Your task to perform on an android device: Open Google Maps Image 0: 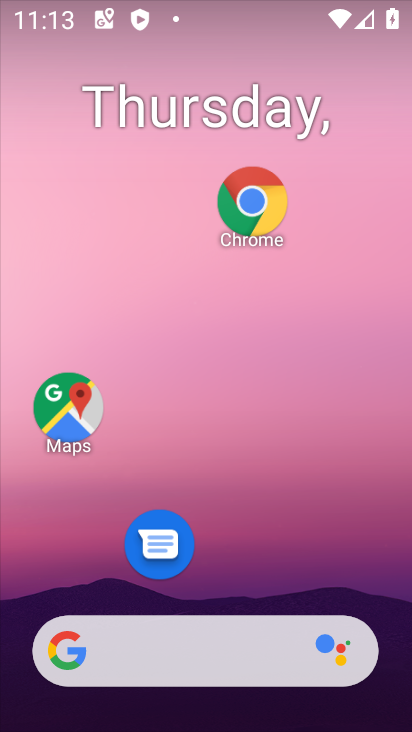
Step 0: press home button
Your task to perform on an android device: Open Google Maps Image 1: 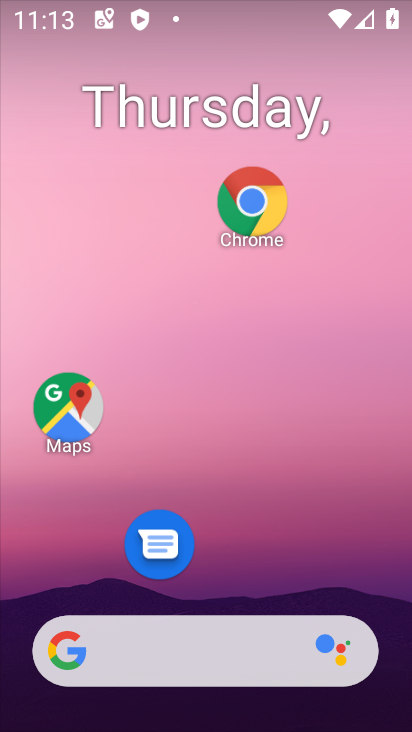
Step 1: press home button
Your task to perform on an android device: Open Google Maps Image 2: 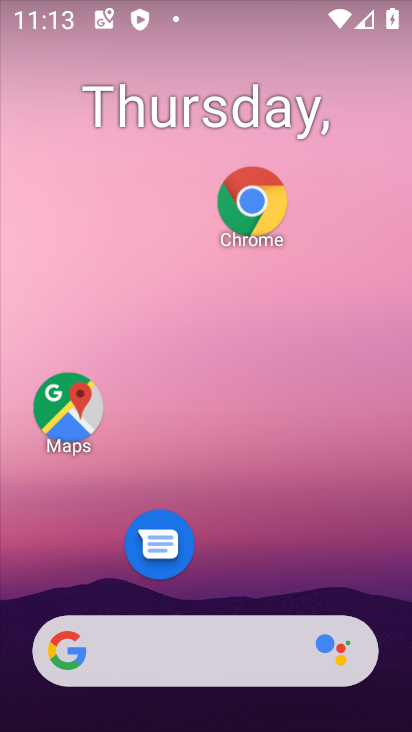
Step 2: click (69, 403)
Your task to perform on an android device: Open Google Maps Image 3: 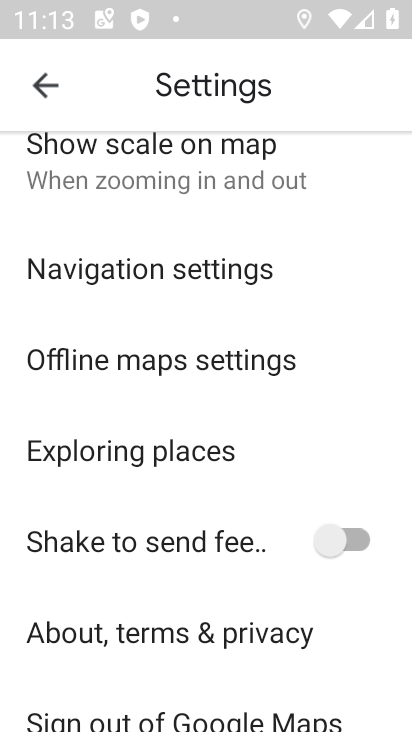
Step 3: click (54, 89)
Your task to perform on an android device: Open Google Maps Image 4: 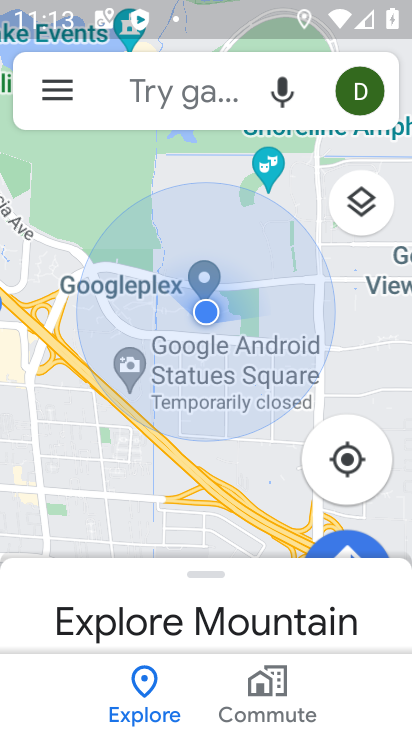
Step 4: drag from (221, 527) to (253, 215)
Your task to perform on an android device: Open Google Maps Image 5: 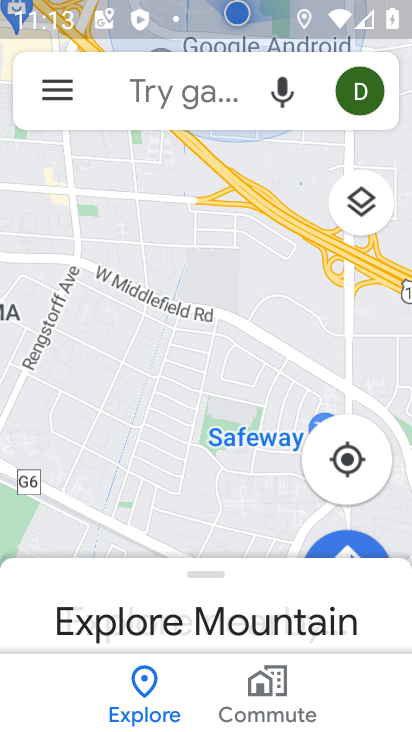
Step 5: drag from (205, 590) to (257, 194)
Your task to perform on an android device: Open Google Maps Image 6: 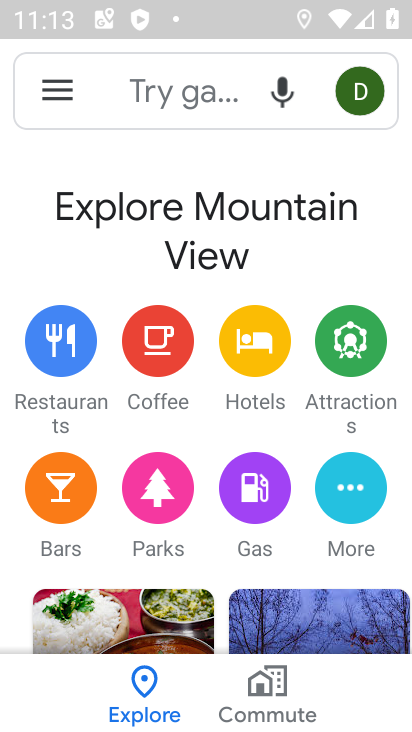
Step 6: click (220, 570)
Your task to perform on an android device: Open Google Maps Image 7: 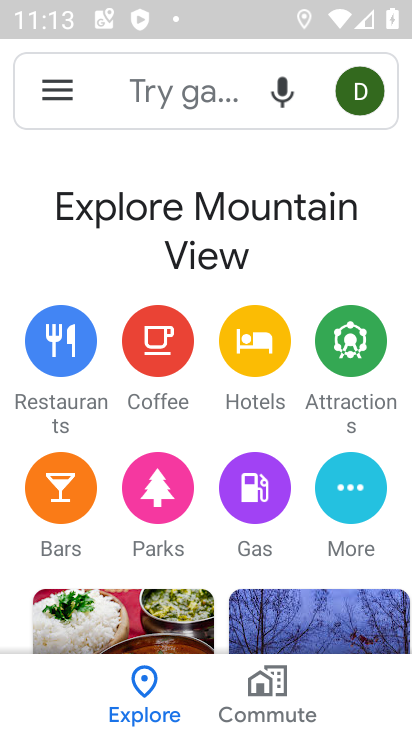
Step 7: click (220, 543)
Your task to perform on an android device: Open Google Maps Image 8: 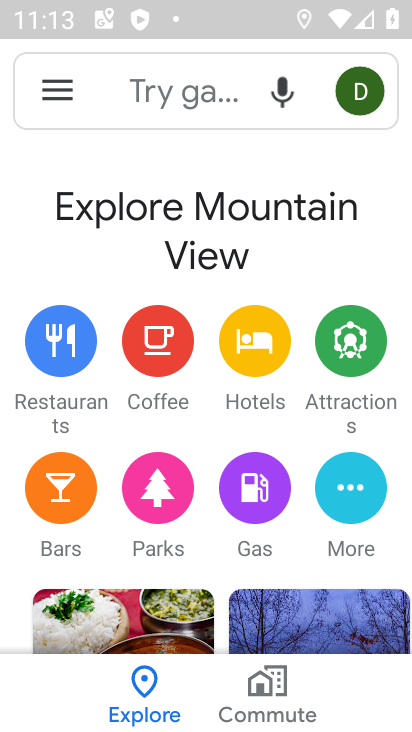
Step 8: task complete